Your task to perform on an android device: Open settings Image 0: 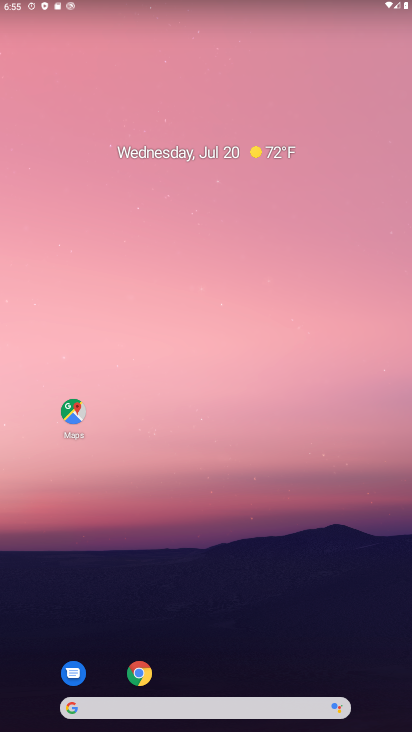
Step 0: drag from (374, 695) to (159, 23)
Your task to perform on an android device: Open settings Image 1: 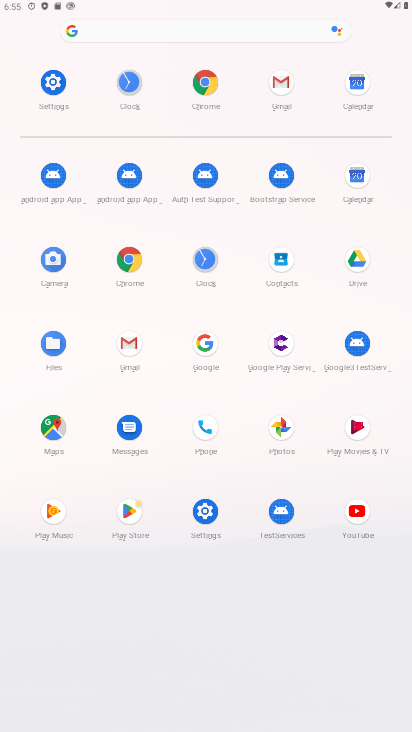
Step 1: click (204, 513)
Your task to perform on an android device: Open settings Image 2: 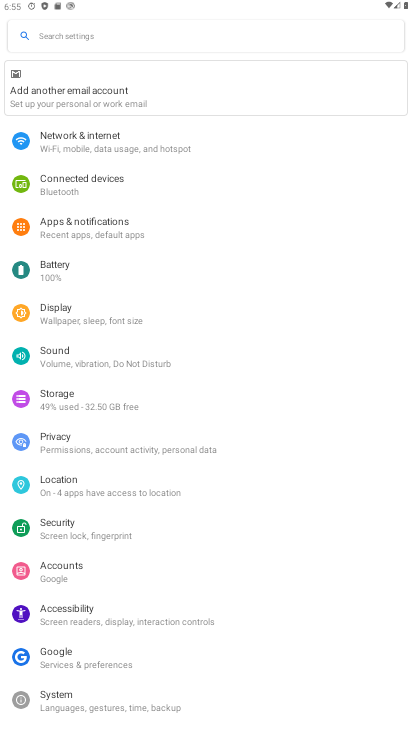
Step 2: task complete